Your task to perform on an android device: Go to Wikipedia Image 0: 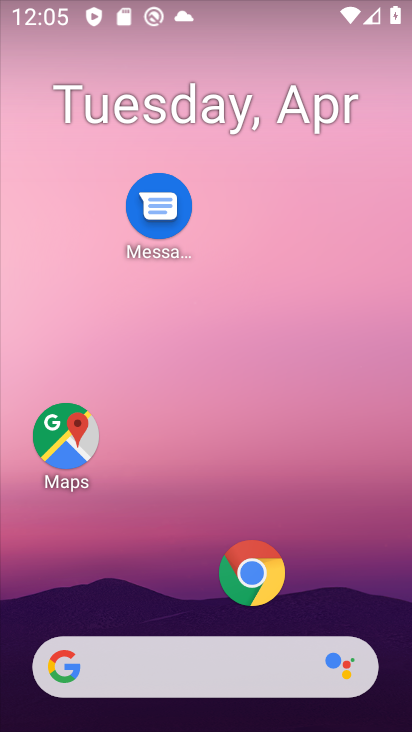
Step 0: click (249, 570)
Your task to perform on an android device: Go to Wikipedia Image 1: 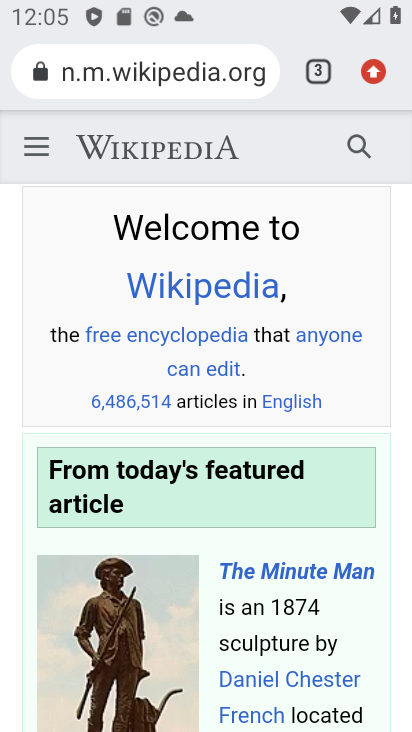
Step 1: task complete